Your task to perform on an android device: Empty the shopping cart on newegg.com. Search for "razer nari" on newegg.com, select the first entry, add it to the cart, then select checkout. Image 0: 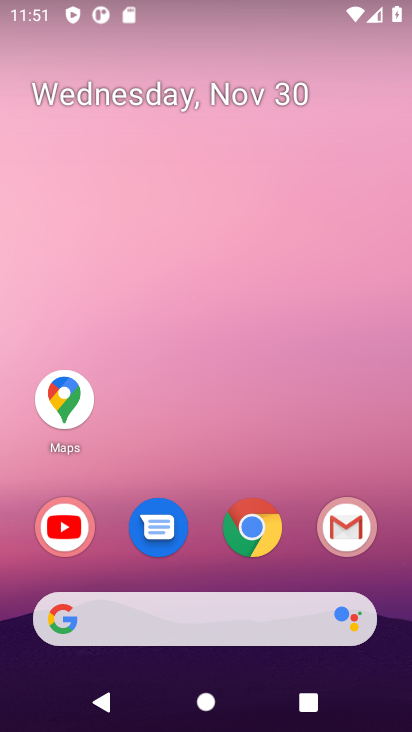
Step 0: click (253, 529)
Your task to perform on an android device: Empty the shopping cart on newegg.com. Search for "razer nari" on newegg.com, select the first entry, add it to the cart, then select checkout. Image 1: 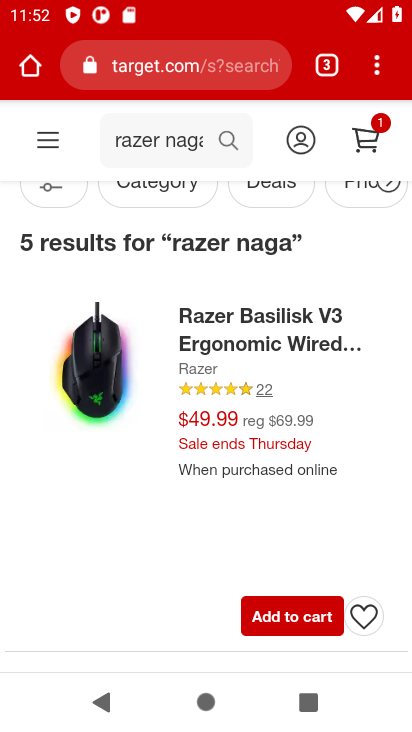
Step 1: click (168, 61)
Your task to perform on an android device: Empty the shopping cart on newegg.com. Search for "razer nari" on newegg.com, select the first entry, add it to the cart, then select checkout. Image 2: 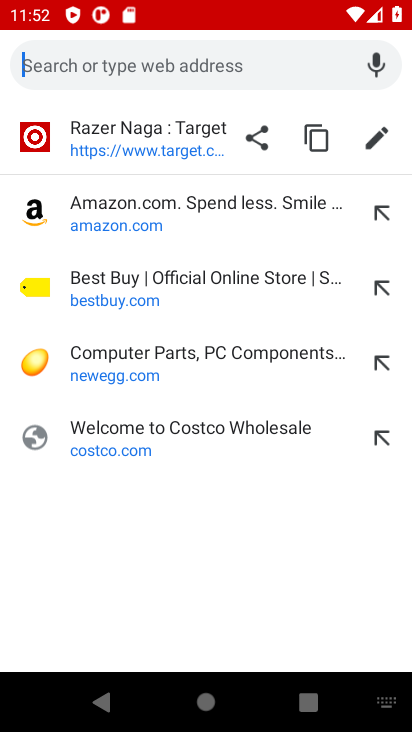
Step 2: click (74, 376)
Your task to perform on an android device: Empty the shopping cart on newegg.com. Search for "razer nari" on newegg.com, select the first entry, add it to the cart, then select checkout. Image 3: 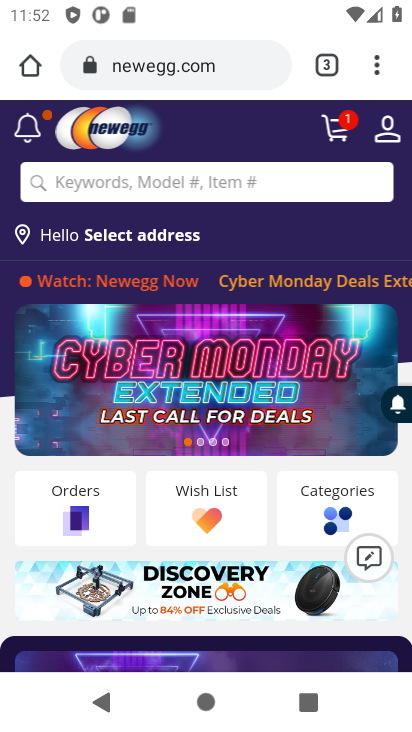
Step 3: click (334, 135)
Your task to perform on an android device: Empty the shopping cart on newegg.com. Search for "razer nari" on newegg.com, select the first entry, add it to the cart, then select checkout. Image 4: 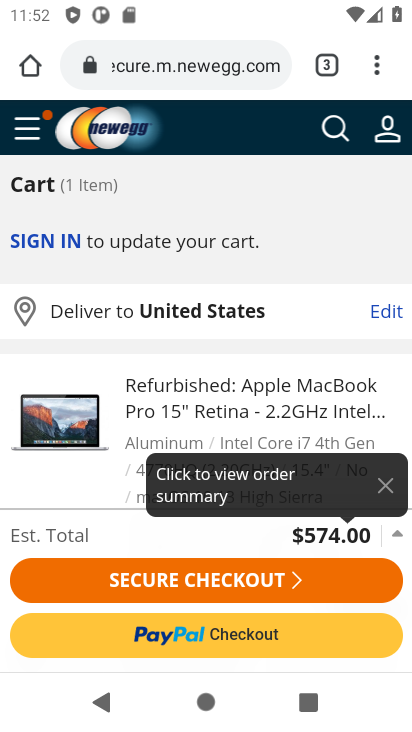
Step 4: drag from (233, 335) to (257, 122)
Your task to perform on an android device: Empty the shopping cart on newegg.com. Search for "razer nari" on newegg.com, select the first entry, add it to the cart, then select checkout. Image 5: 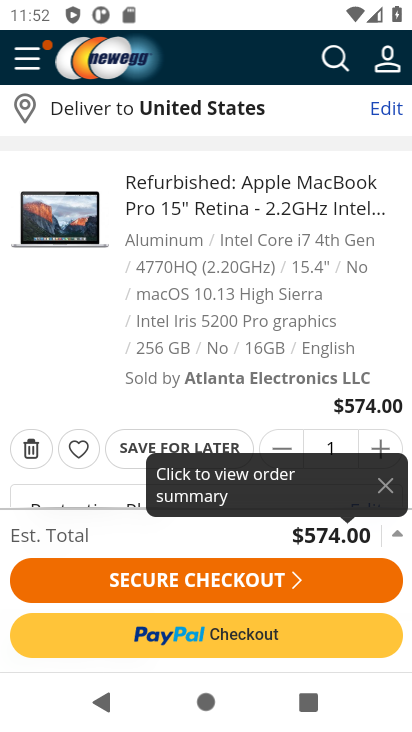
Step 5: drag from (68, 334) to (60, 210)
Your task to perform on an android device: Empty the shopping cart on newegg.com. Search for "razer nari" on newegg.com, select the first entry, add it to the cart, then select checkout. Image 6: 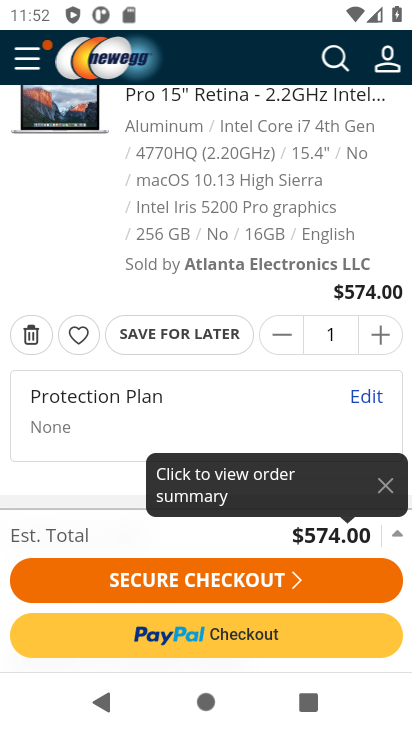
Step 6: click (28, 333)
Your task to perform on an android device: Empty the shopping cart on newegg.com. Search for "razer nari" on newegg.com, select the first entry, add it to the cart, then select checkout. Image 7: 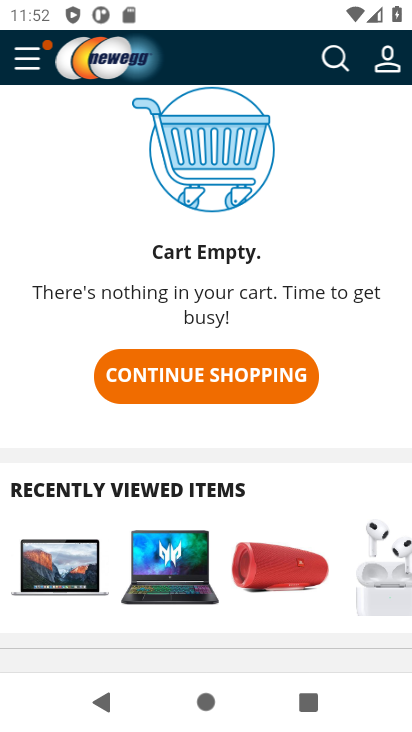
Step 7: click (339, 61)
Your task to perform on an android device: Empty the shopping cart on newegg.com. Search for "razer nari" on newegg.com, select the first entry, add it to the cart, then select checkout. Image 8: 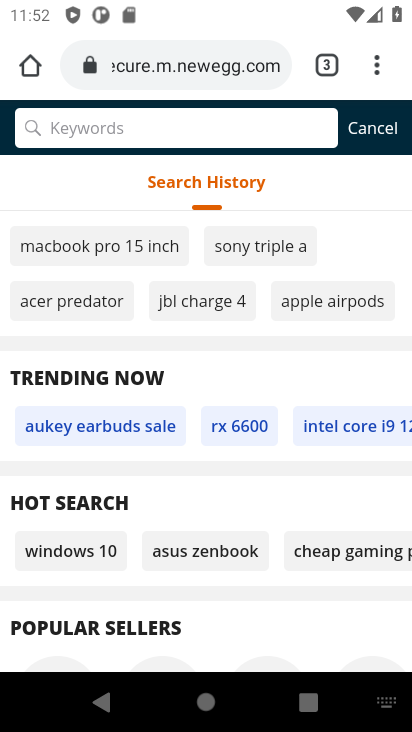
Step 8: type "razer nari"
Your task to perform on an android device: Empty the shopping cart on newegg.com. Search for "razer nari" on newegg.com, select the first entry, add it to the cart, then select checkout. Image 9: 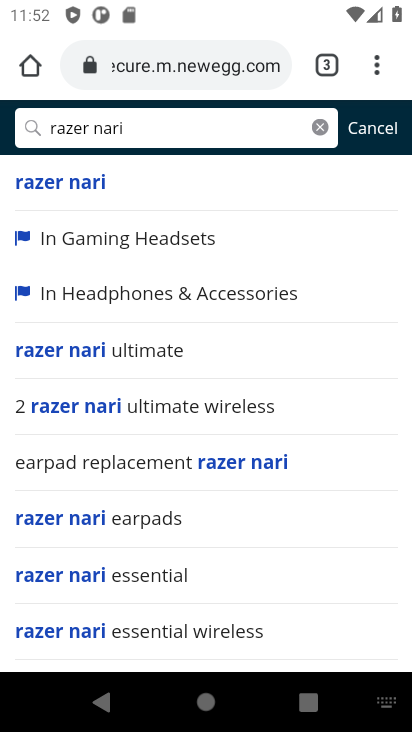
Step 9: click (53, 186)
Your task to perform on an android device: Empty the shopping cart on newegg.com. Search for "razer nari" on newegg.com, select the first entry, add it to the cart, then select checkout. Image 10: 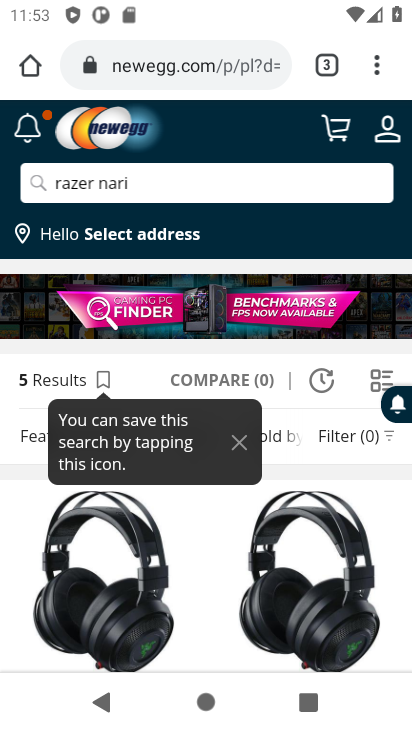
Step 10: drag from (187, 541) to (170, 274)
Your task to perform on an android device: Empty the shopping cart on newegg.com. Search for "razer nari" on newegg.com, select the first entry, add it to the cart, then select checkout. Image 11: 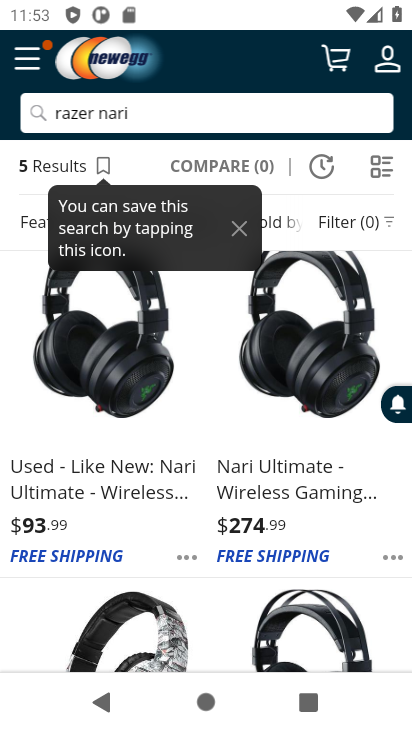
Step 11: drag from (148, 309) to (133, 515)
Your task to perform on an android device: Empty the shopping cart on newegg.com. Search for "razer nari" on newegg.com, select the first entry, add it to the cart, then select checkout. Image 12: 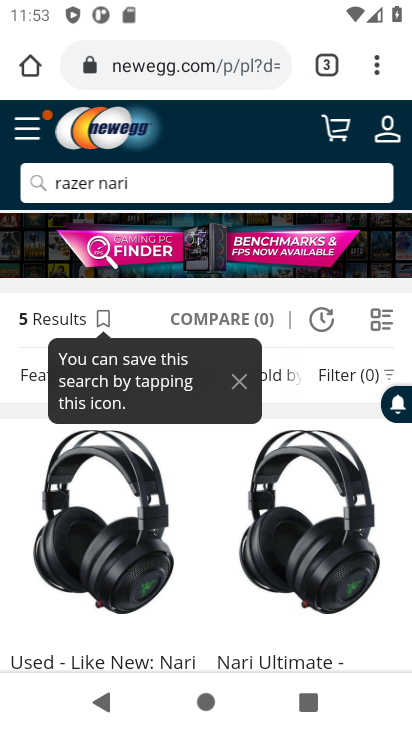
Step 12: drag from (131, 510) to (123, 312)
Your task to perform on an android device: Empty the shopping cart on newegg.com. Search for "razer nari" on newegg.com, select the first entry, add it to the cart, then select checkout. Image 13: 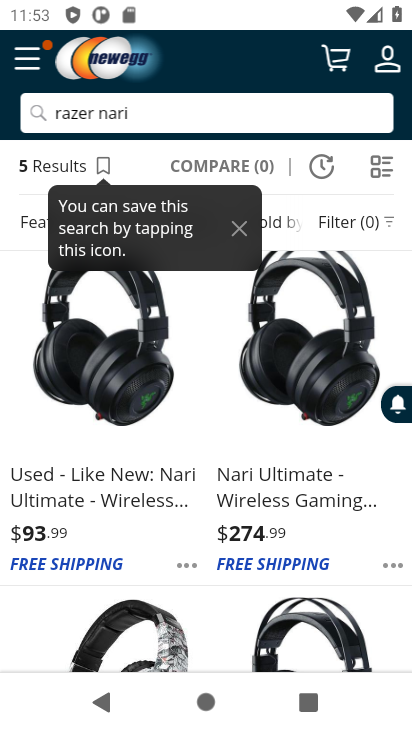
Step 13: click (76, 375)
Your task to perform on an android device: Empty the shopping cart on newegg.com. Search for "razer nari" on newegg.com, select the first entry, add it to the cart, then select checkout. Image 14: 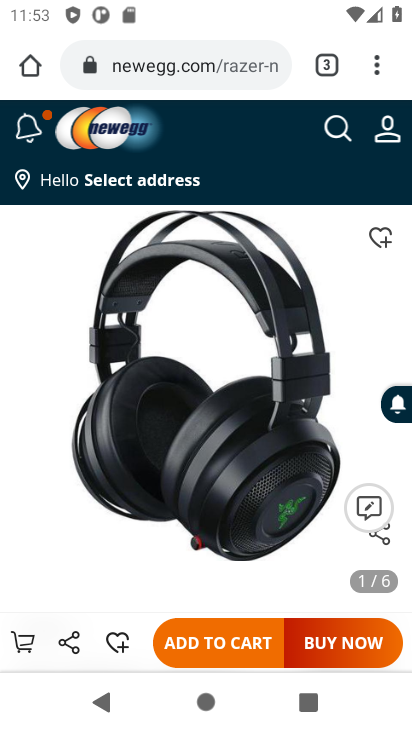
Step 14: drag from (151, 511) to (148, 190)
Your task to perform on an android device: Empty the shopping cart on newegg.com. Search for "razer nari" on newegg.com, select the first entry, add it to the cart, then select checkout. Image 15: 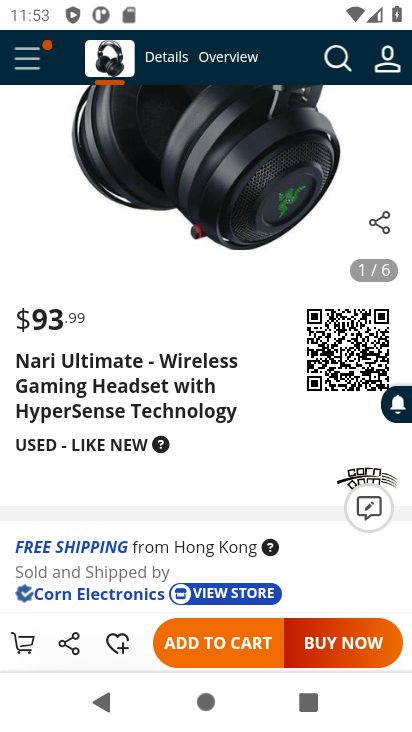
Step 15: drag from (150, 433) to (147, 254)
Your task to perform on an android device: Empty the shopping cart on newegg.com. Search for "razer nari" on newegg.com, select the first entry, add it to the cart, then select checkout. Image 16: 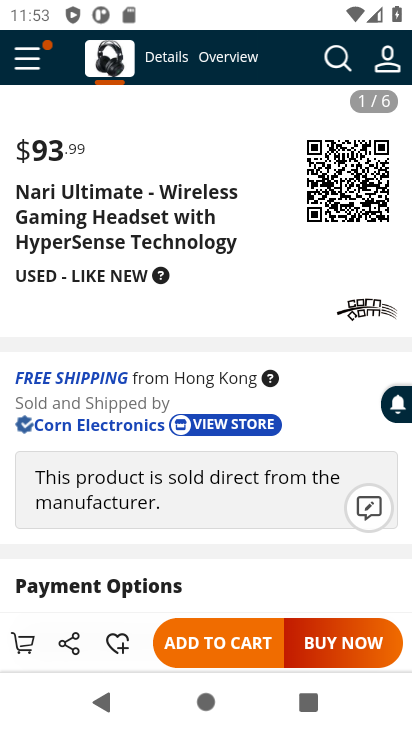
Step 16: click (209, 652)
Your task to perform on an android device: Empty the shopping cart on newegg.com. Search for "razer nari" on newegg.com, select the first entry, add it to the cart, then select checkout. Image 17: 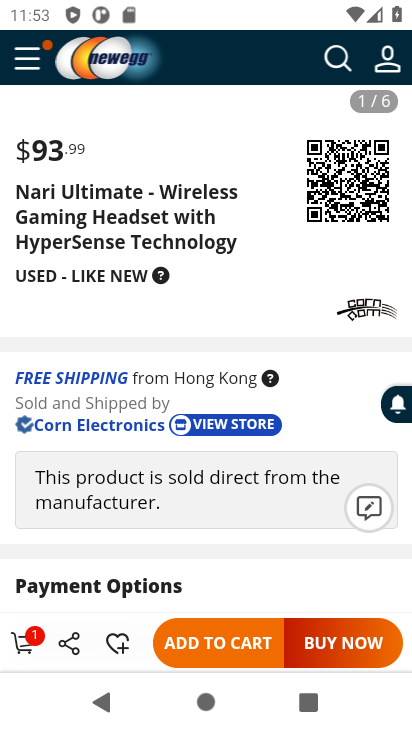
Step 17: click (27, 643)
Your task to perform on an android device: Empty the shopping cart on newegg.com. Search for "razer nari" on newegg.com, select the first entry, add it to the cart, then select checkout. Image 18: 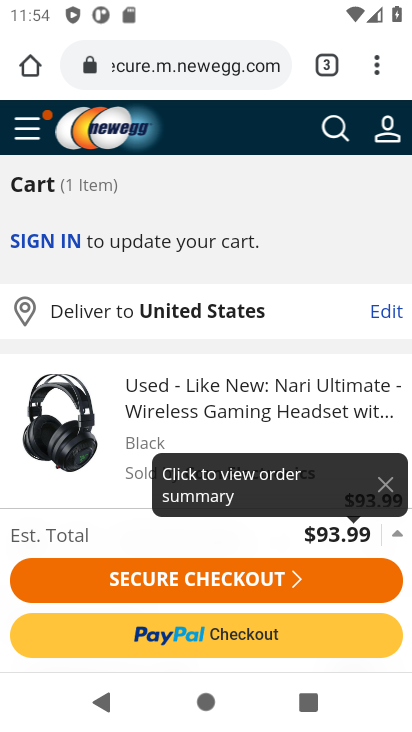
Step 18: click (196, 587)
Your task to perform on an android device: Empty the shopping cart on newegg.com. Search for "razer nari" on newegg.com, select the first entry, add it to the cart, then select checkout. Image 19: 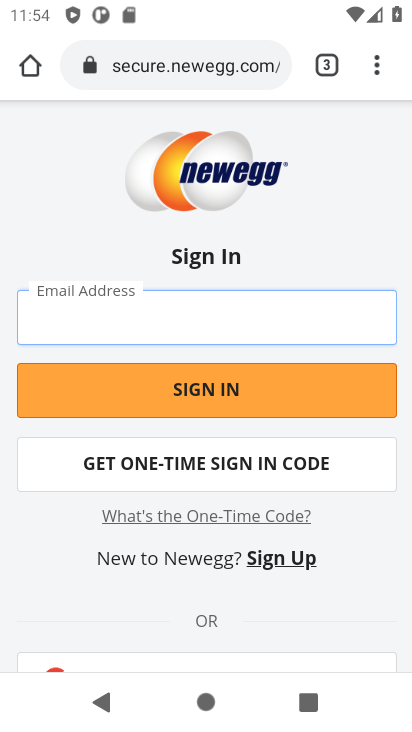
Step 19: task complete